Your task to perform on an android device: change keyboard looks Image 0: 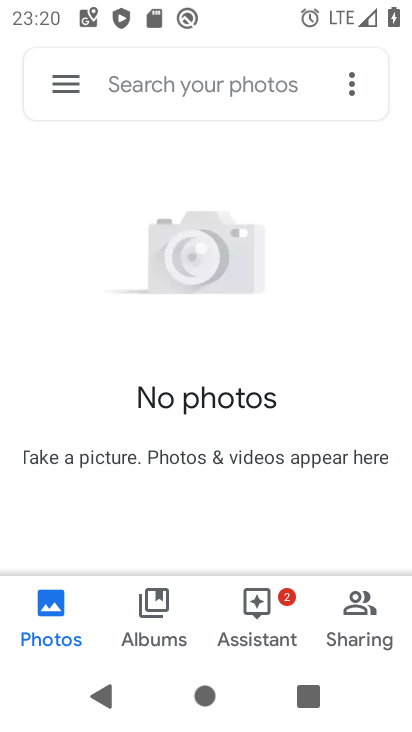
Step 0: drag from (207, 568) to (270, 96)
Your task to perform on an android device: change keyboard looks Image 1: 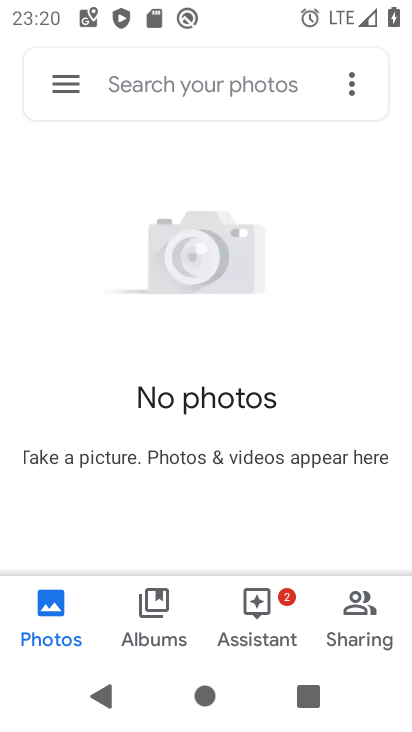
Step 1: press back button
Your task to perform on an android device: change keyboard looks Image 2: 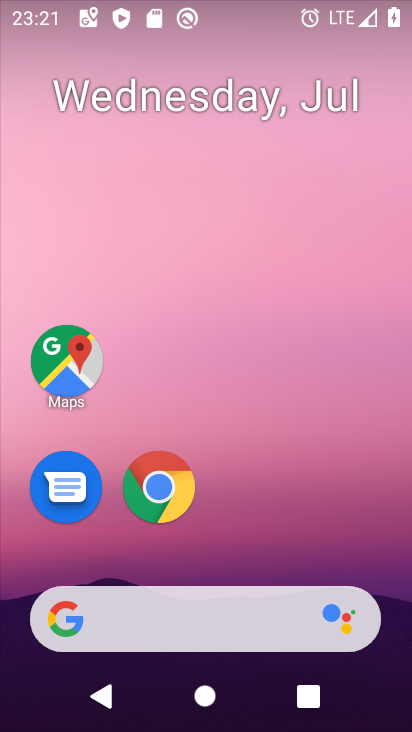
Step 2: drag from (220, 571) to (284, 63)
Your task to perform on an android device: change keyboard looks Image 3: 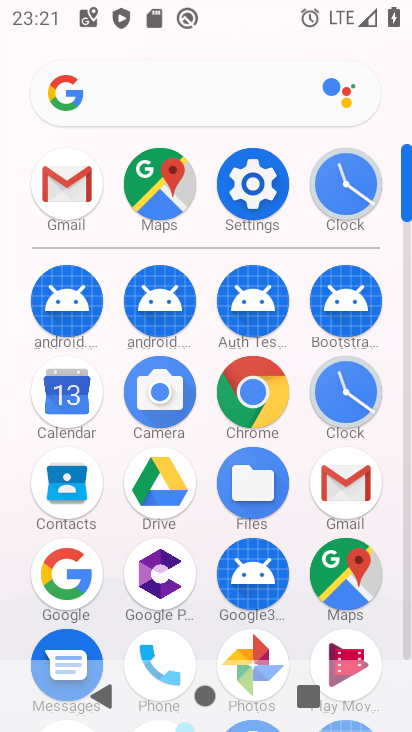
Step 3: click (256, 170)
Your task to perform on an android device: change keyboard looks Image 4: 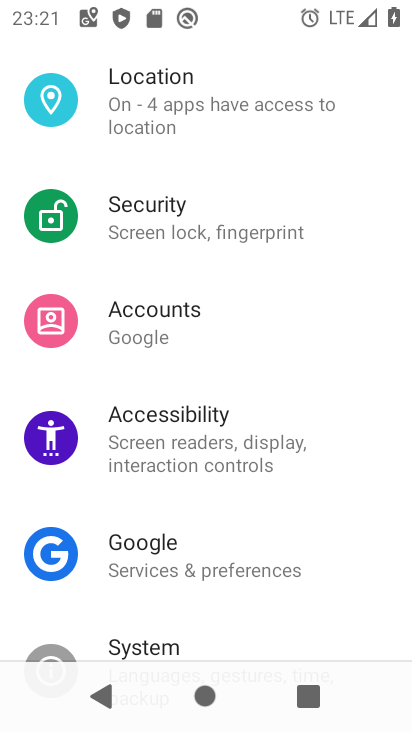
Step 4: drag from (180, 588) to (240, 0)
Your task to perform on an android device: change keyboard looks Image 5: 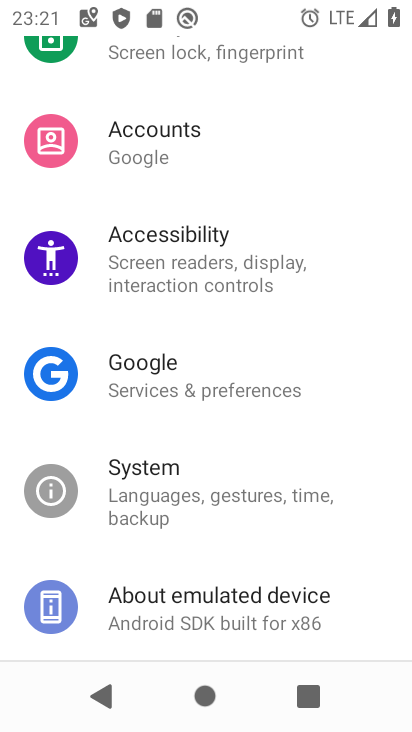
Step 5: click (161, 485)
Your task to perform on an android device: change keyboard looks Image 6: 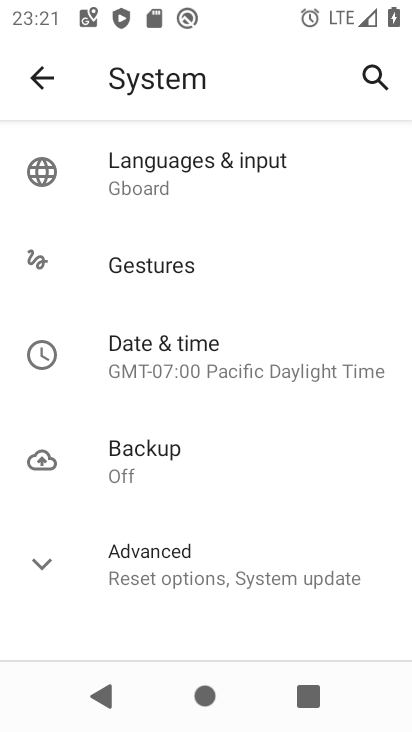
Step 6: click (201, 172)
Your task to perform on an android device: change keyboard looks Image 7: 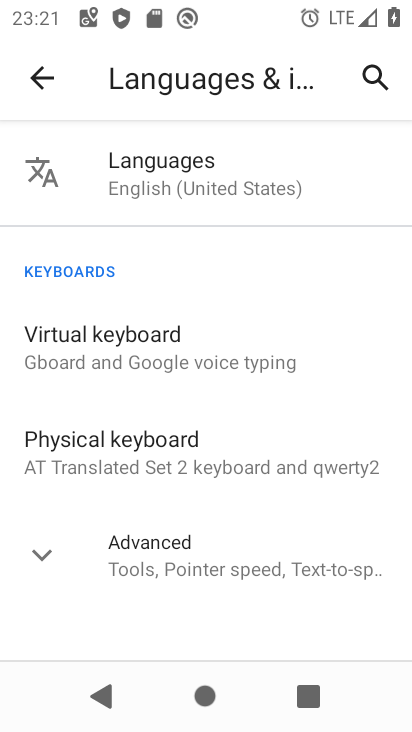
Step 7: click (144, 366)
Your task to perform on an android device: change keyboard looks Image 8: 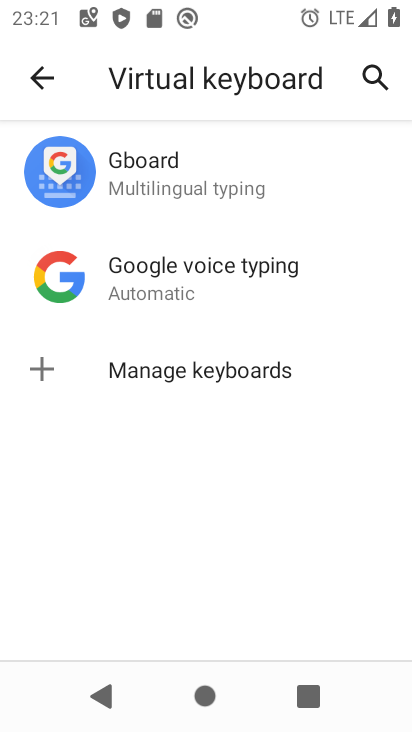
Step 8: click (166, 177)
Your task to perform on an android device: change keyboard looks Image 9: 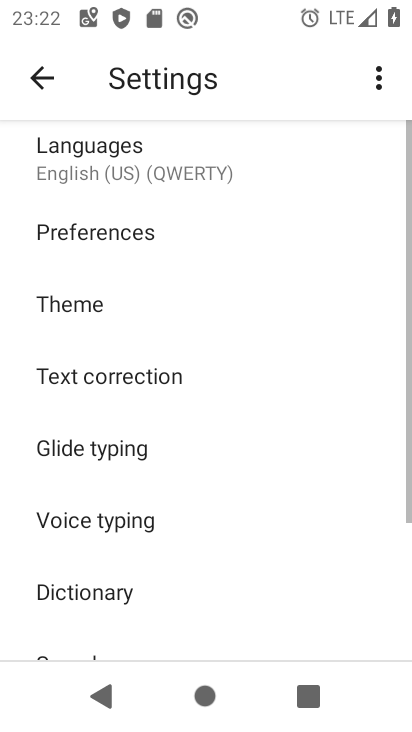
Step 9: click (77, 304)
Your task to perform on an android device: change keyboard looks Image 10: 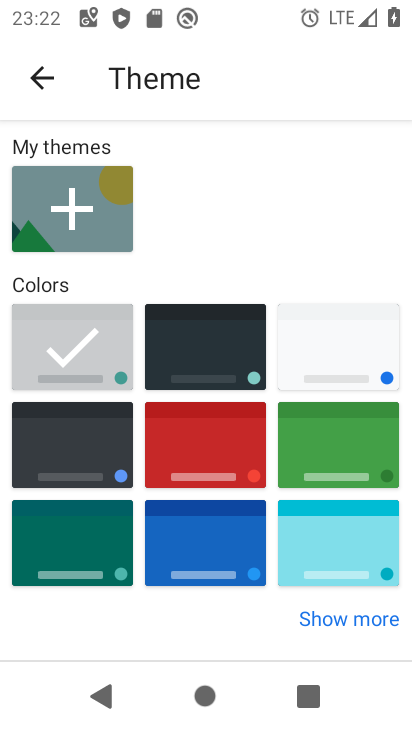
Step 10: click (204, 454)
Your task to perform on an android device: change keyboard looks Image 11: 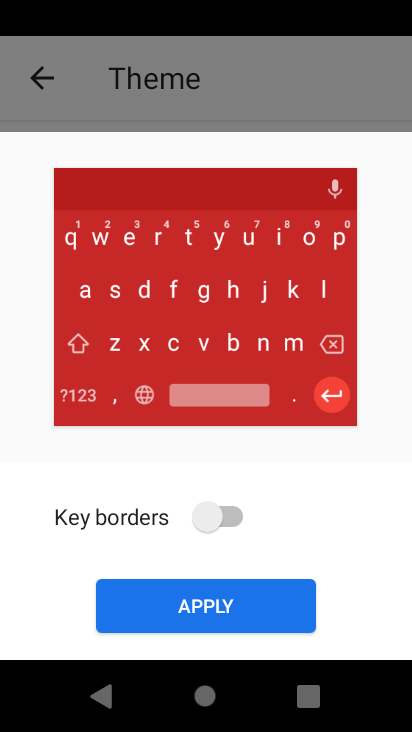
Step 11: click (188, 597)
Your task to perform on an android device: change keyboard looks Image 12: 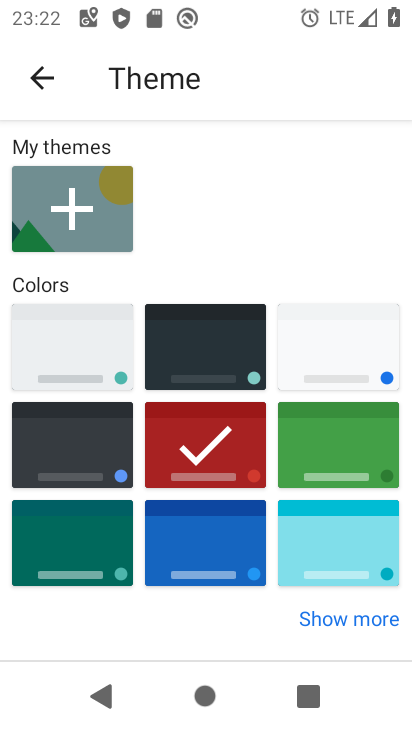
Step 12: task complete